Your task to perform on an android device: Open the calendar and show me this week's events? Image 0: 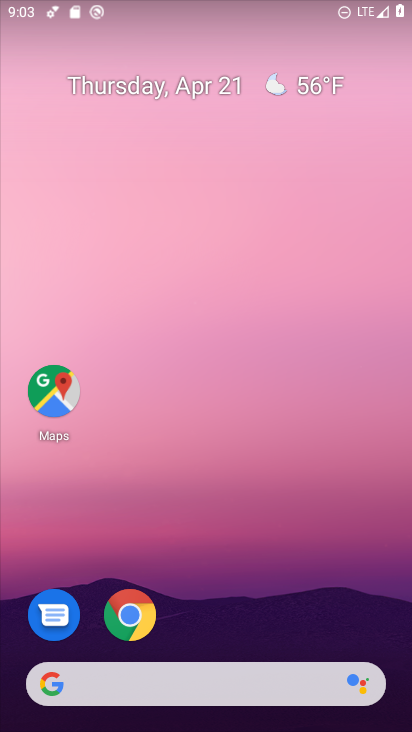
Step 0: click (291, 73)
Your task to perform on an android device: Open the calendar and show me this week's events? Image 1: 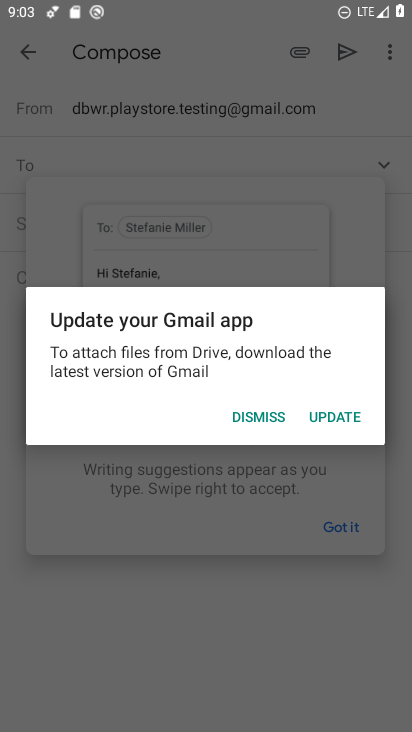
Step 1: press home button
Your task to perform on an android device: Open the calendar and show me this week's events? Image 2: 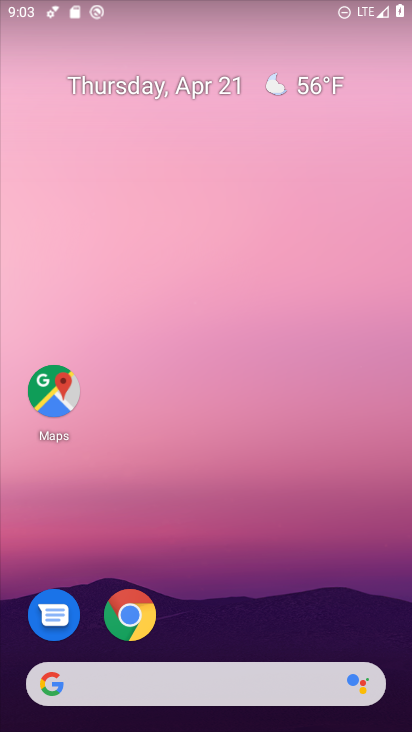
Step 2: drag from (298, 567) to (292, 102)
Your task to perform on an android device: Open the calendar and show me this week's events? Image 3: 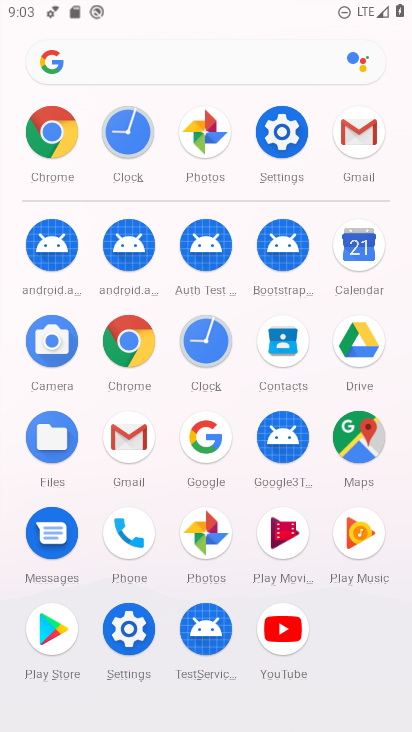
Step 3: click (366, 253)
Your task to perform on an android device: Open the calendar and show me this week's events? Image 4: 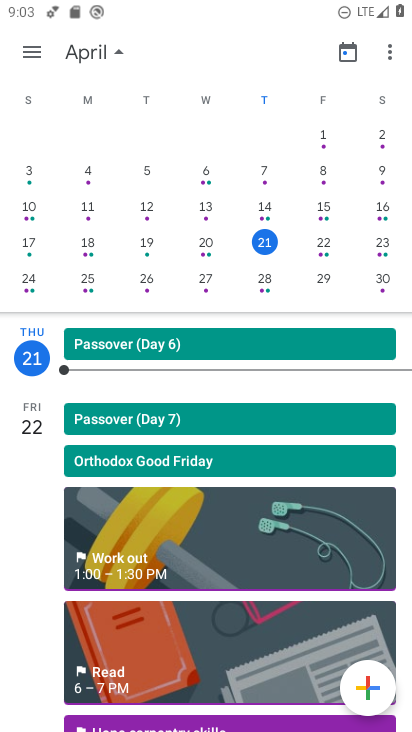
Step 4: click (317, 250)
Your task to perform on an android device: Open the calendar and show me this week's events? Image 5: 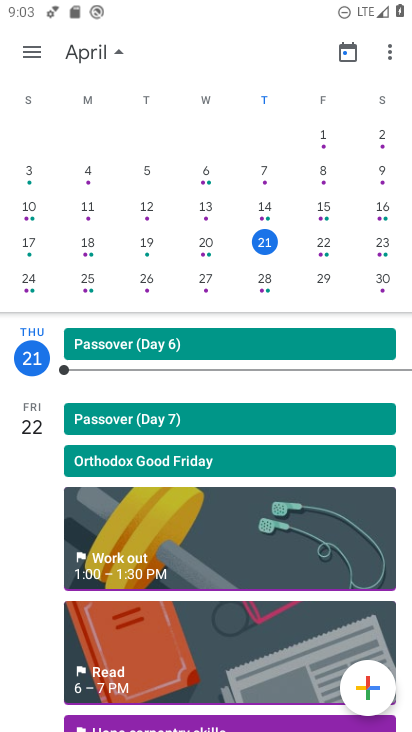
Step 5: click (322, 243)
Your task to perform on an android device: Open the calendar and show me this week's events? Image 6: 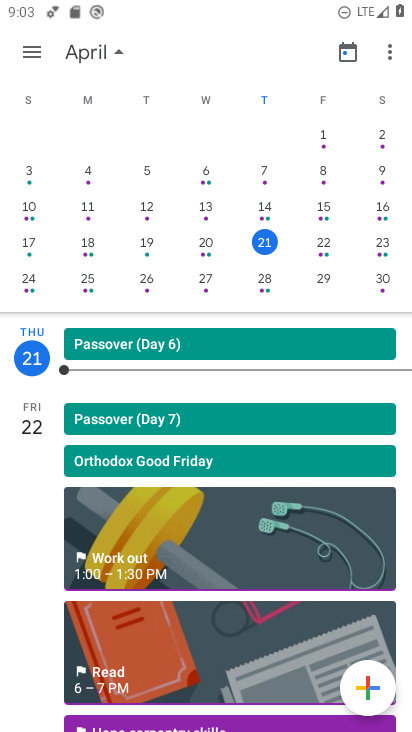
Step 6: click (322, 243)
Your task to perform on an android device: Open the calendar and show me this week's events? Image 7: 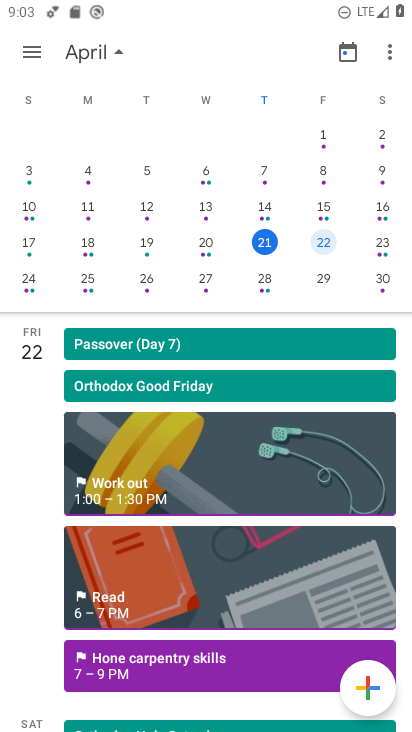
Step 7: click (322, 243)
Your task to perform on an android device: Open the calendar and show me this week's events? Image 8: 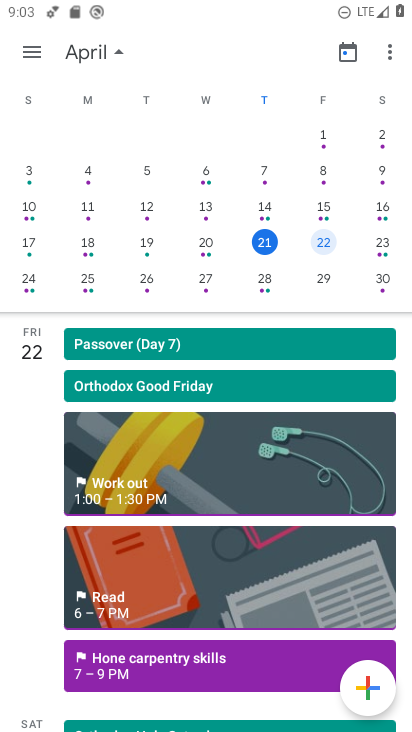
Step 8: task complete